Your task to perform on an android device: Open network settings Image 0: 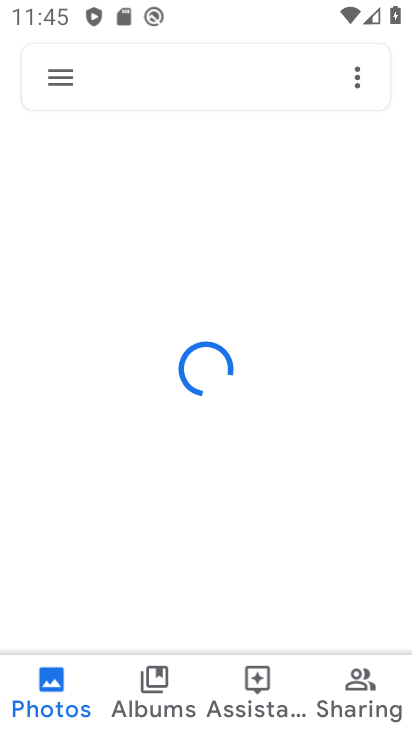
Step 0: press home button
Your task to perform on an android device: Open network settings Image 1: 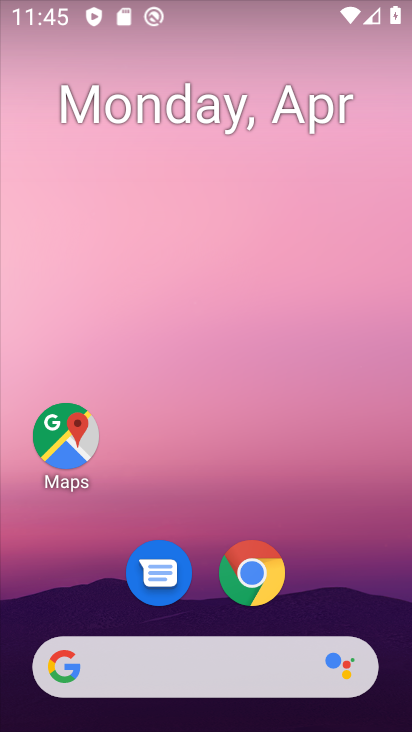
Step 1: drag from (211, 380) to (211, 77)
Your task to perform on an android device: Open network settings Image 2: 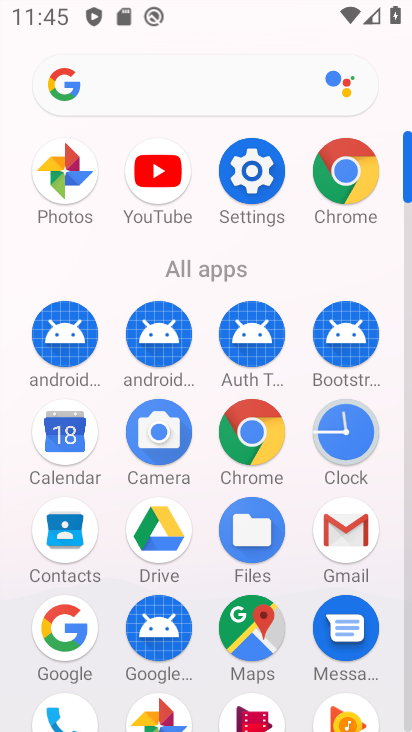
Step 2: click (253, 172)
Your task to perform on an android device: Open network settings Image 3: 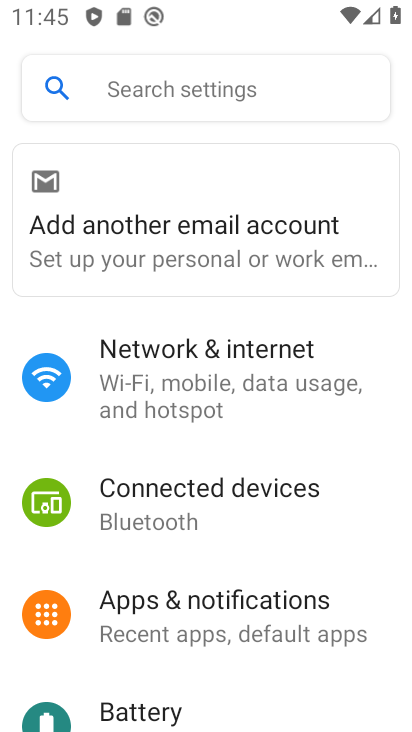
Step 3: click (239, 410)
Your task to perform on an android device: Open network settings Image 4: 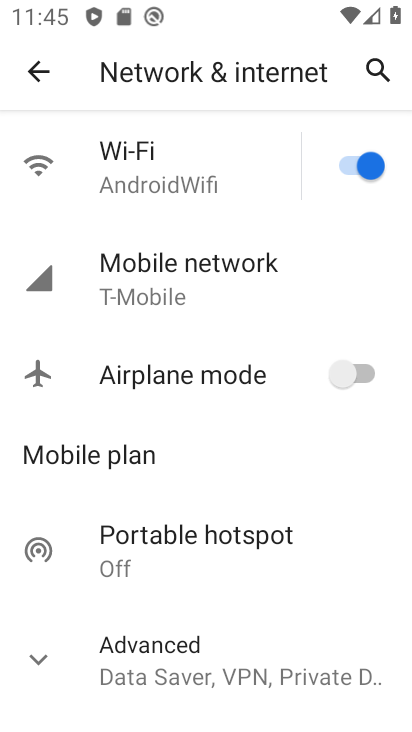
Step 4: drag from (252, 597) to (230, 223)
Your task to perform on an android device: Open network settings Image 5: 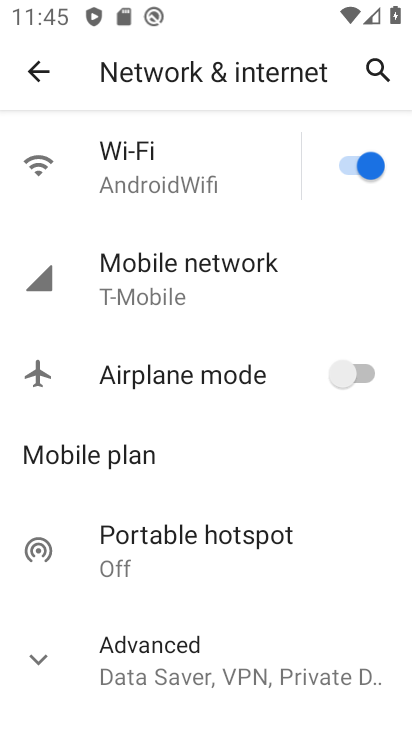
Step 5: click (206, 648)
Your task to perform on an android device: Open network settings Image 6: 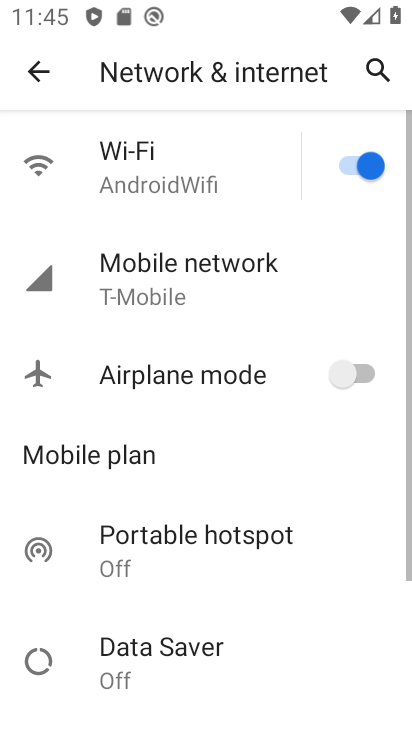
Step 6: drag from (204, 648) to (166, 222)
Your task to perform on an android device: Open network settings Image 7: 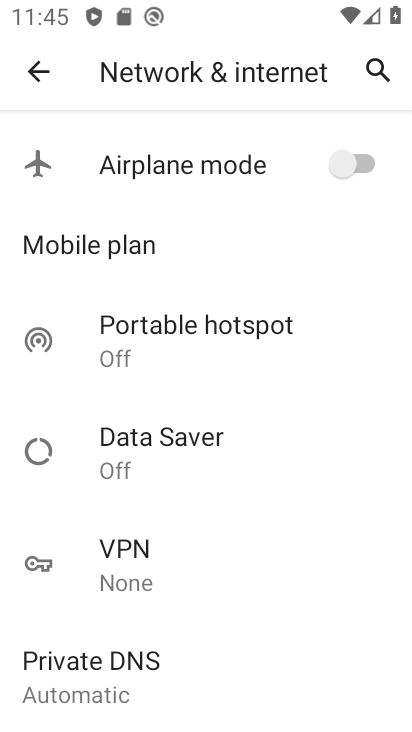
Step 7: drag from (157, 233) to (144, 524)
Your task to perform on an android device: Open network settings Image 8: 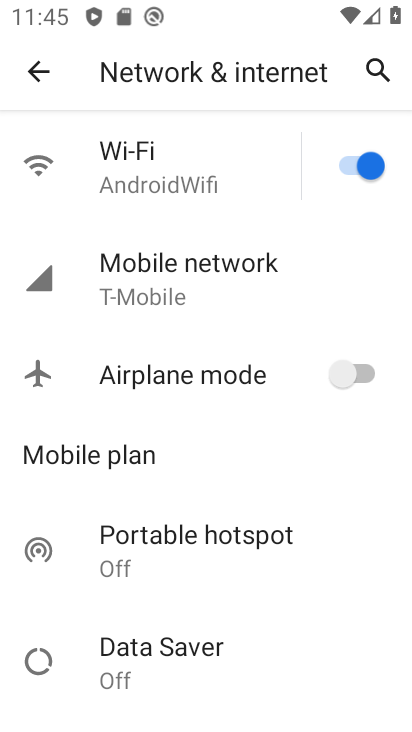
Step 8: click (141, 282)
Your task to perform on an android device: Open network settings Image 9: 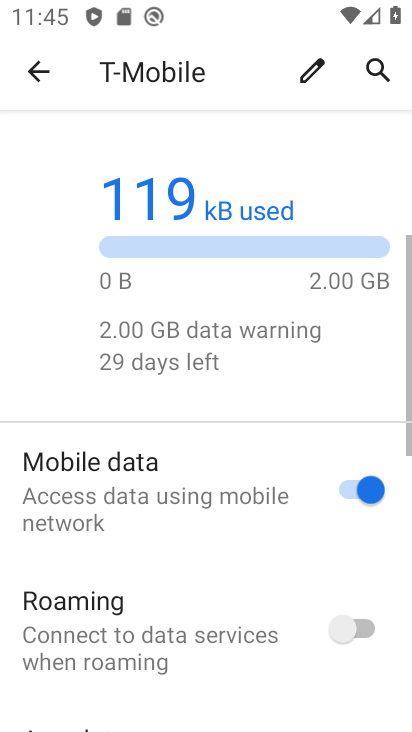
Step 9: drag from (235, 631) to (149, 142)
Your task to perform on an android device: Open network settings Image 10: 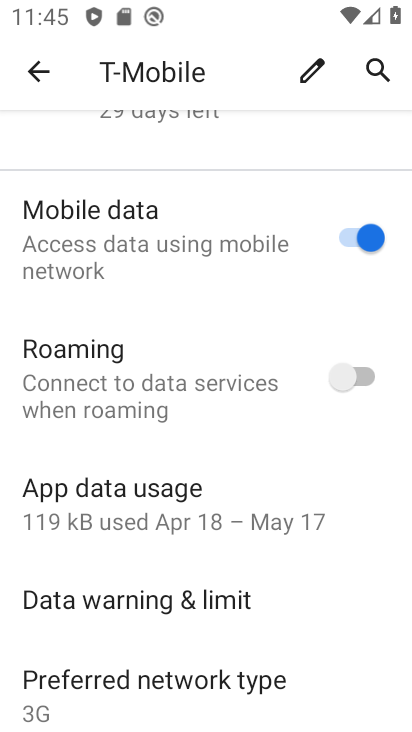
Step 10: drag from (149, 654) to (131, 186)
Your task to perform on an android device: Open network settings Image 11: 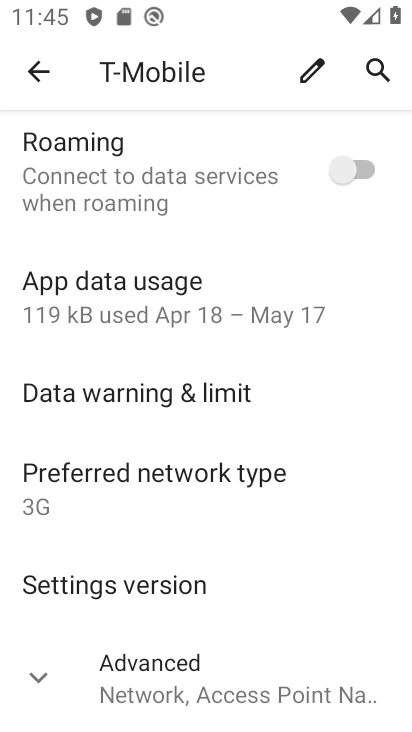
Step 11: click (134, 693)
Your task to perform on an android device: Open network settings Image 12: 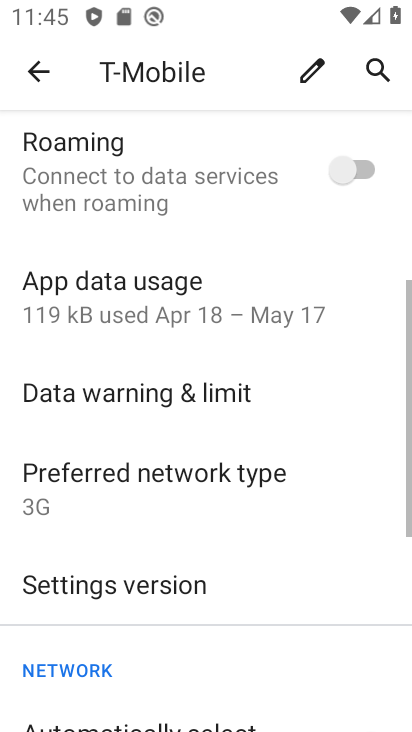
Step 12: task complete